Your task to perform on an android device: open a bookmark in the chrome app Image 0: 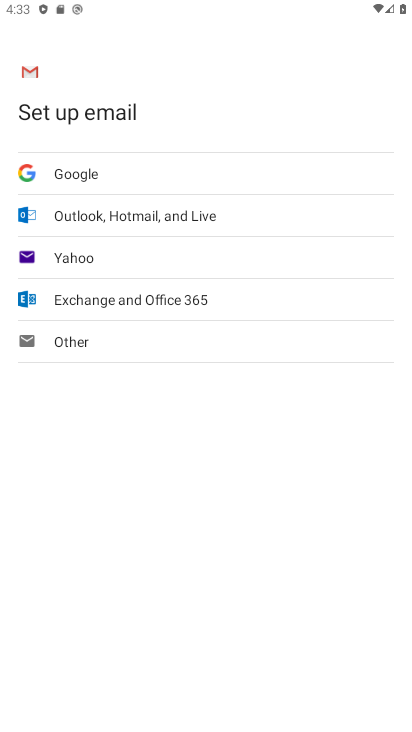
Step 0: press home button
Your task to perform on an android device: open a bookmark in the chrome app Image 1: 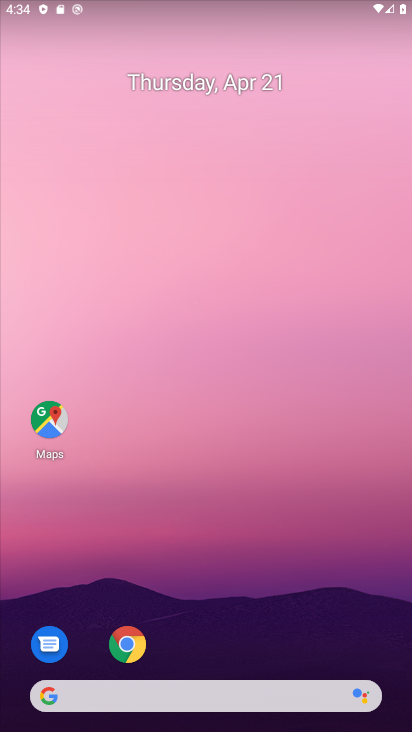
Step 1: drag from (218, 602) to (249, 154)
Your task to perform on an android device: open a bookmark in the chrome app Image 2: 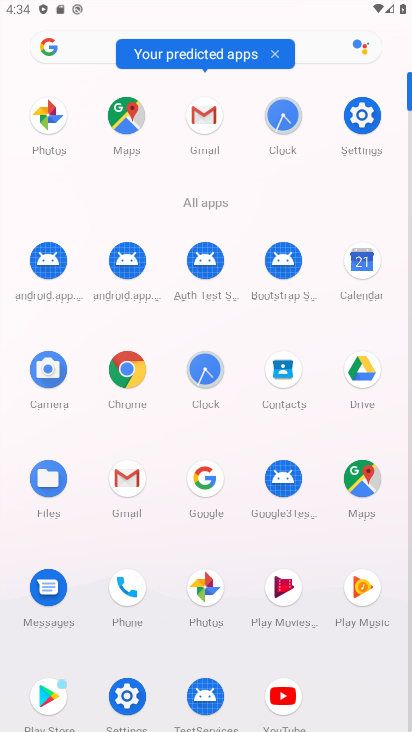
Step 2: click (133, 367)
Your task to perform on an android device: open a bookmark in the chrome app Image 3: 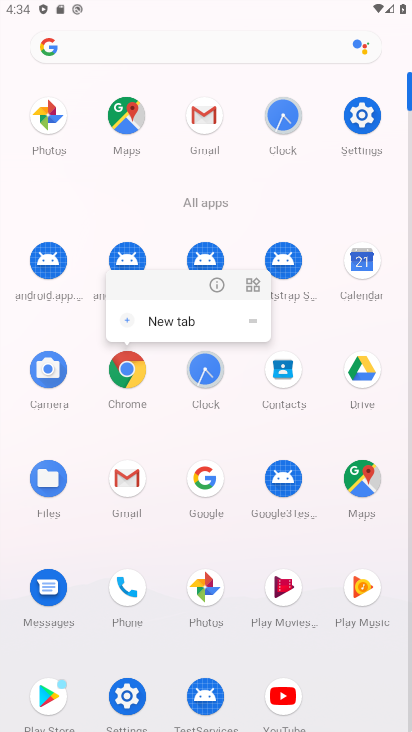
Step 3: click (125, 376)
Your task to perform on an android device: open a bookmark in the chrome app Image 4: 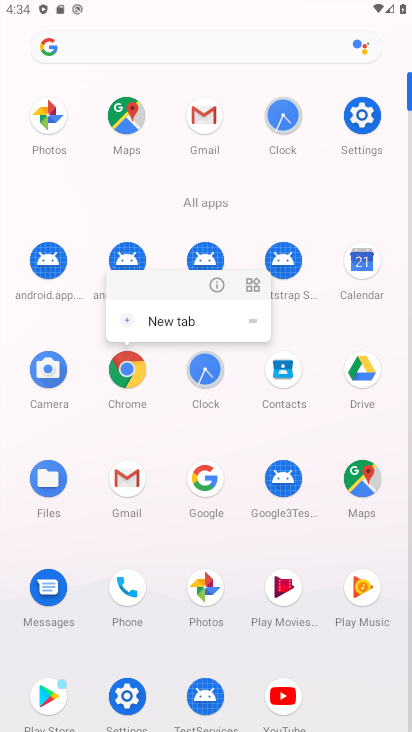
Step 4: click (128, 378)
Your task to perform on an android device: open a bookmark in the chrome app Image 5: 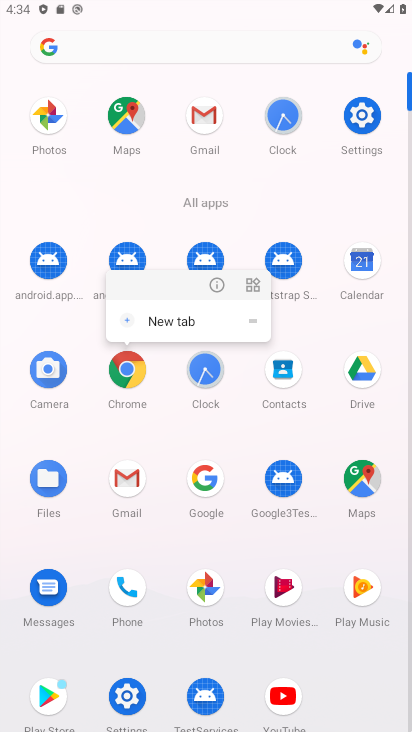
Step 5: click (123, 382)
Your task to perform on an android device: open a bookmark in the chrome app Image 6: 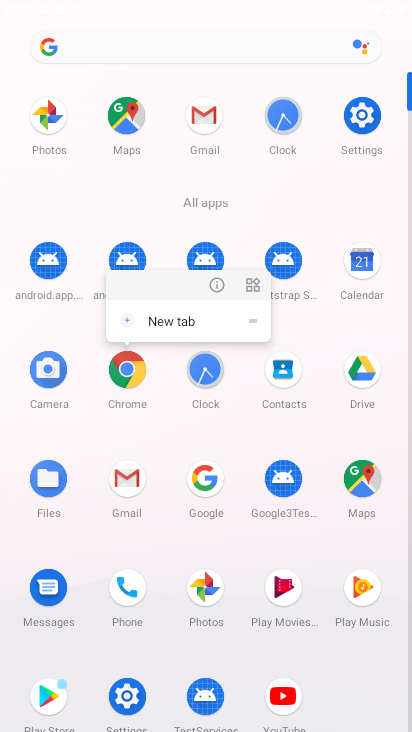
Step 6: click (128, 383)
Your task to perform on an android device: open a bookmark in the chrome app Image 7: 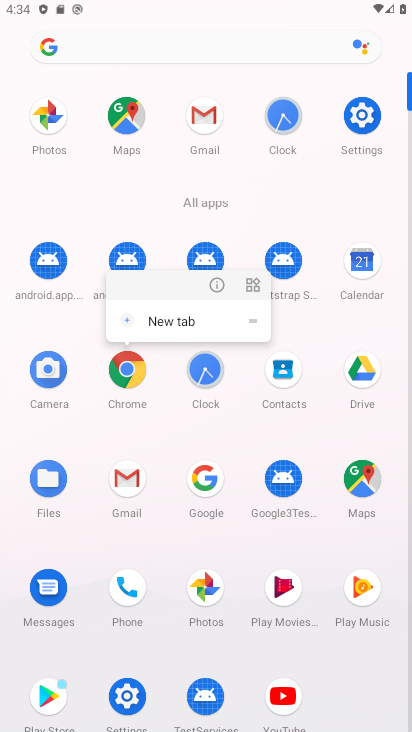
Step 7: click (131, 374)
Your task to perform on an android device: open a bookmark in the chrome app Image 8: 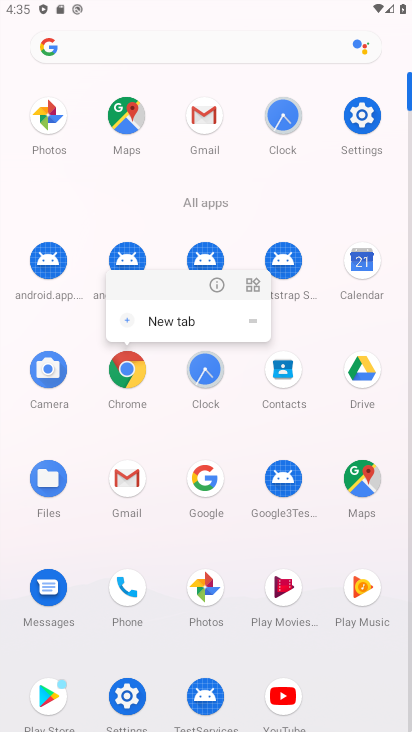
Step 8: click (129, 371)
Your task to perform on an android device: open a bookmark in the chrome app Image 9: 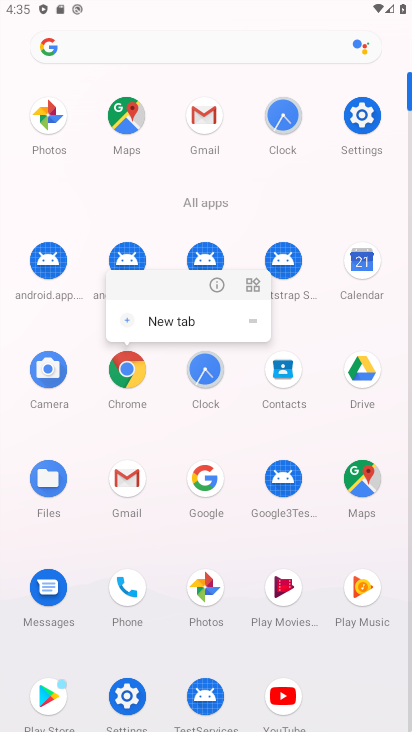
Step 9: click (129, 373)
Your task to perform on an android device: open a bookmark in the chrome app Image 10: 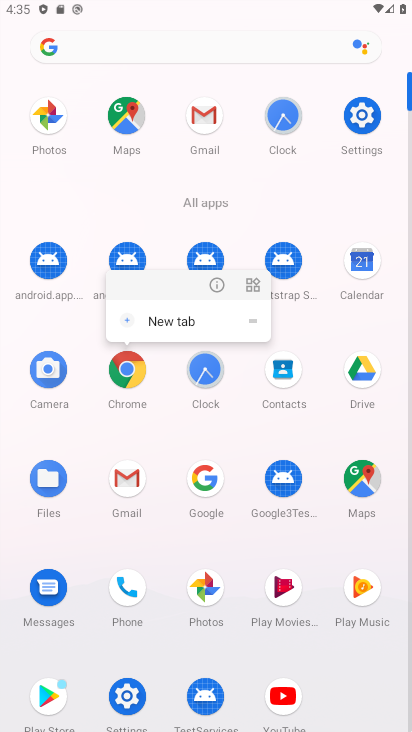
Step 10: click (153, 425)
Your task to perform on an android device: open a bookmark in the chrome app Image 11: 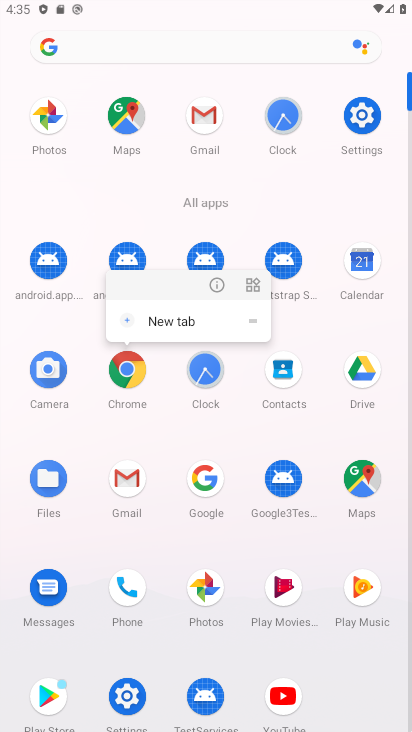
Step 11: click (126, 372)
Your task to perform on an android device: open a bookmark in the chrome app Image 12: 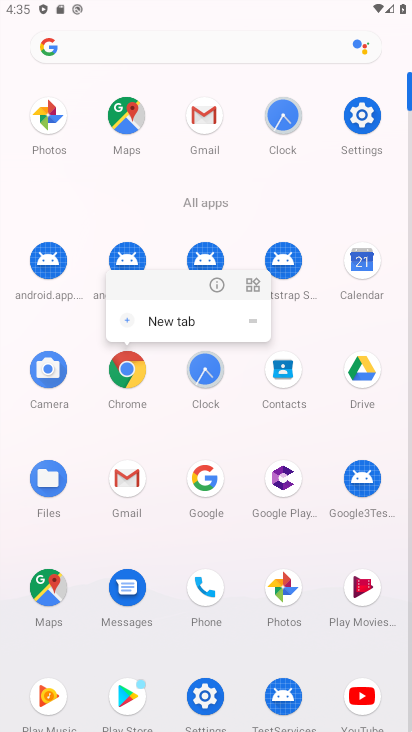
Step 12: click (120, 379)
Your task to perform on an android device: open a bookmark in the chrome app Image 13: 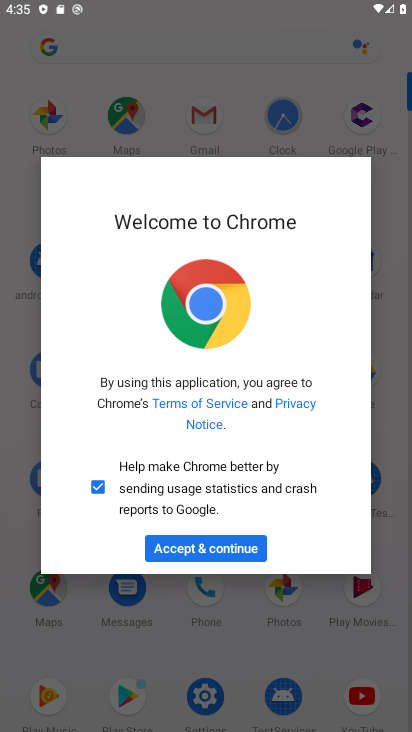
Step 13: click (241, 544)
Your task to perform on an android device: open a bookmark in the chrome app Image 14: 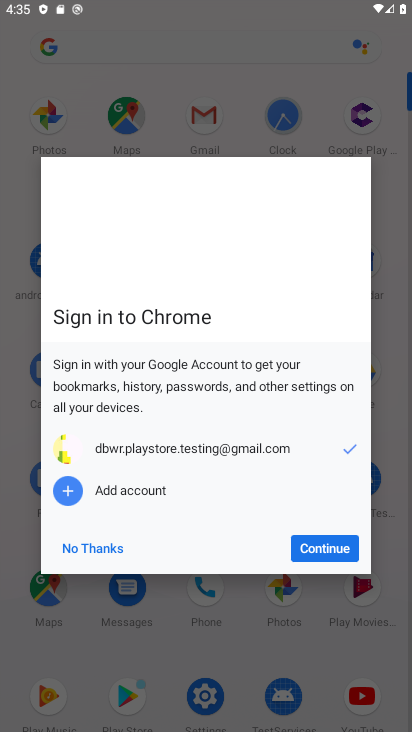
Step 14: click (311, 542)
Your task to perform on an android device: open a bookmark in the chrome app Image 15: 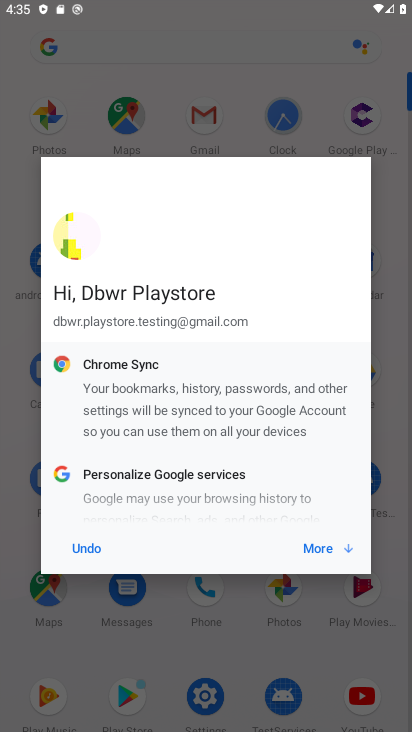
Step 15: click (311, 553)
Your task to perform on an android device: open a bookmark in the chrome app Image 16: 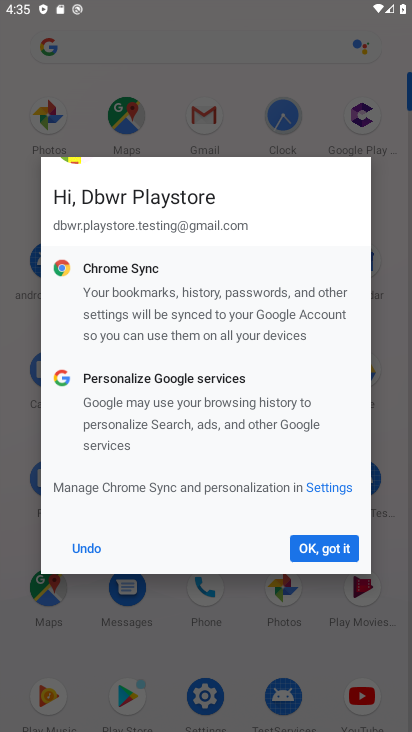
Step 16: click (311, 553)
Your task to perform on an android device: open a bookmark in the chrome app Image 17: 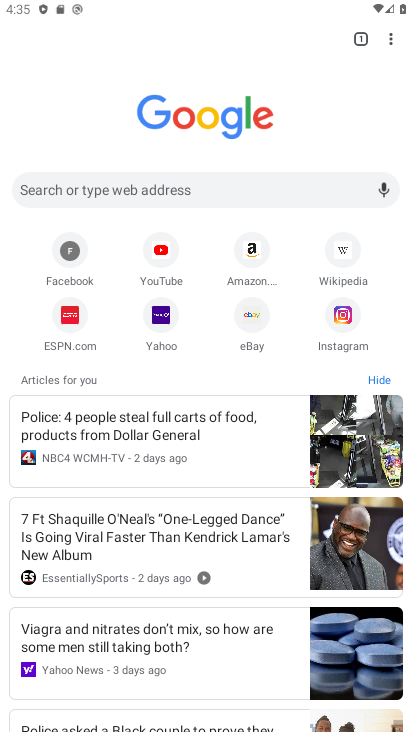
Step 17: task complete